Your task to perform on an android device: show emergency info Image 0: 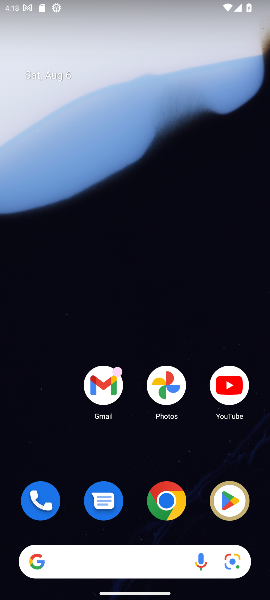
Step 0: drag from (32, 496) to (82, 80)
Your task to perform on an android device: show emergency info Image 1: 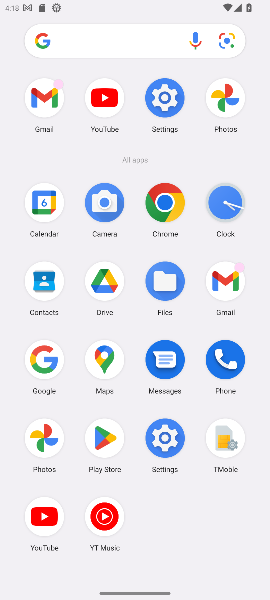
Step 1: click (170, 100)
Your task to perform on an android device: show emergency info Image 2: 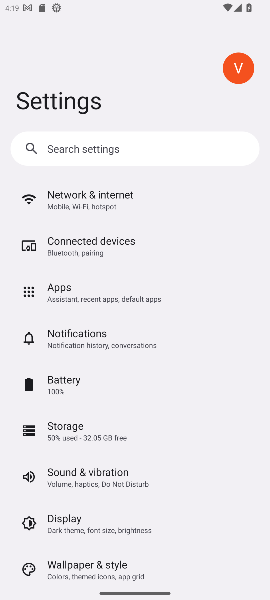
Step 2: drag from (176, 531) to (165, 202)
Your task to perform on an android device: show emergency info Image 3: 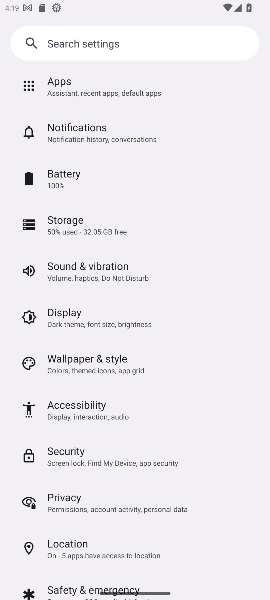
Step 3: drag from (148, 565) to (149, 121)
Your task to perform on an android device: show emergency info Image 4: 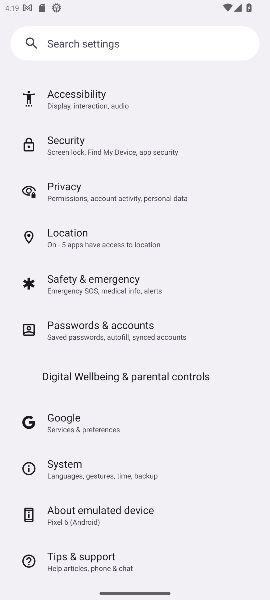
Step 4: click (67, 292)
Your task to perform on an android device: show emergency info Image 5: 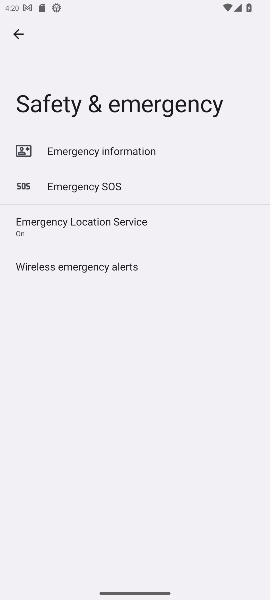
Step 5: task complete